Your task to perform on an android device: open a bookmark in the chrome app Image 0: 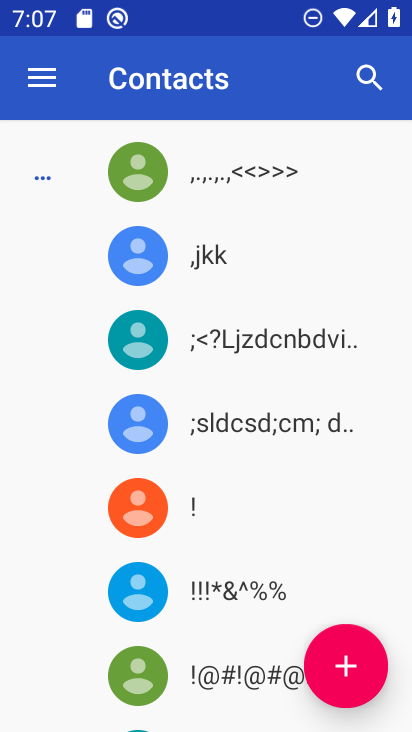
Step 0: press home button
Your task to perform on an android device: open a bookmark in the chrome app Image 1: 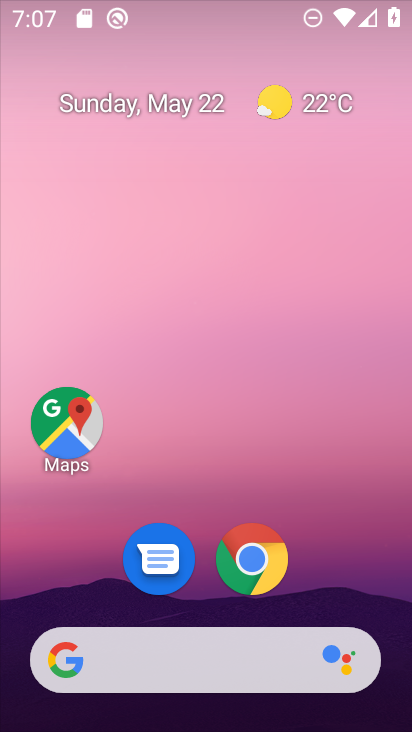
Step 1: drag from (252, 696) to (169, 216)
Your task to perform on an android device: open a bookmark in the chrome app Image 2: 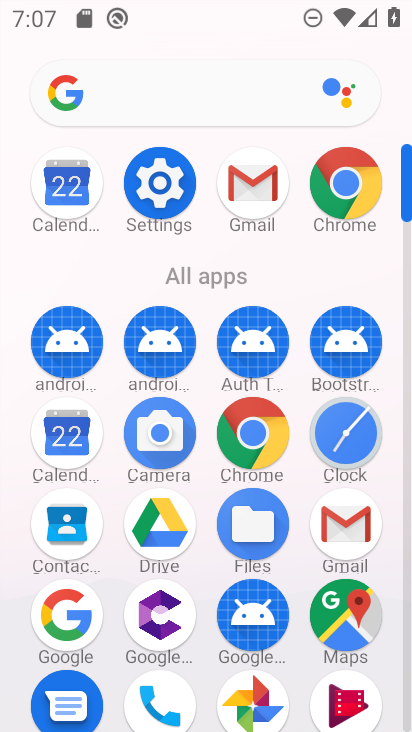
Step 2: click (350, 188)
Your task to perform on an android device: open a bookmark in the chrome app Image 3: 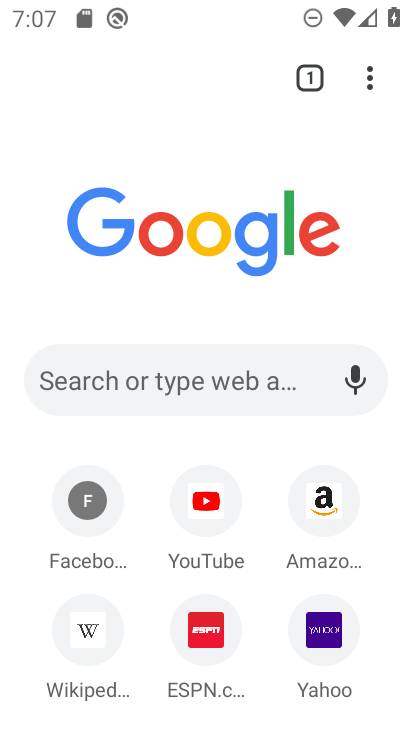
Step 3: click (361, 102)
Your task to perform on an android device: open a bookmark in the chrome app Image 4: 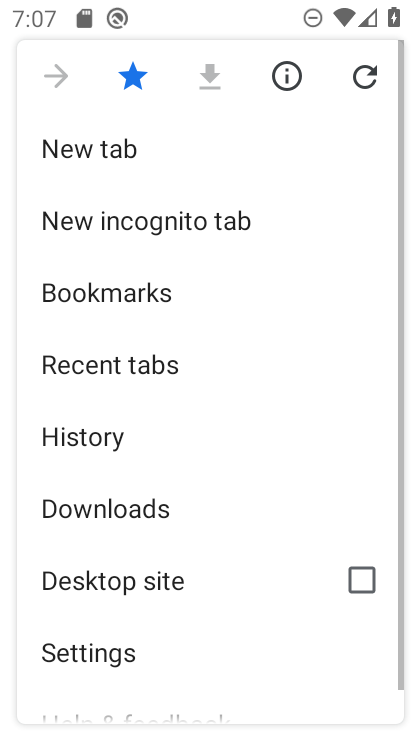
Step 4: click (165, 278)
Your task to perform on an android device: open a bookmark in the chrome app Image 5: 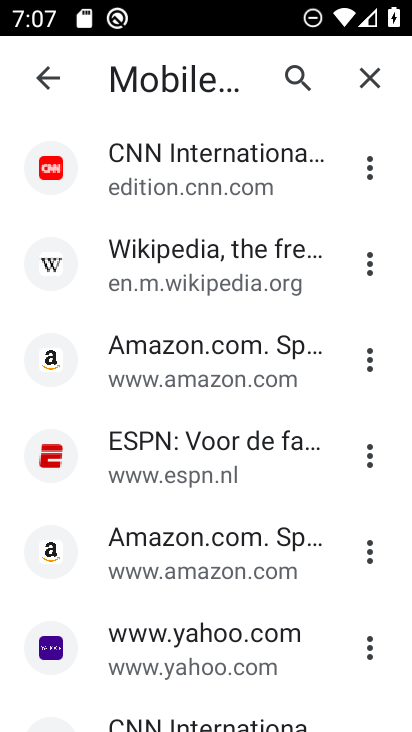
Step 5: task complete